Your task to perform on an android device: What's the weather going to be tomorrow? Image 0: 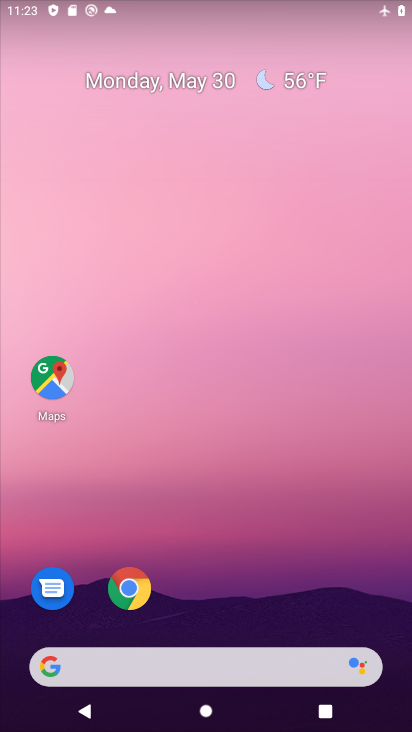
Step 0: drag from (213, 569) to (223, 73)
Your task to perform on an android device: What's the weather going to be tomorrow? Image 1: 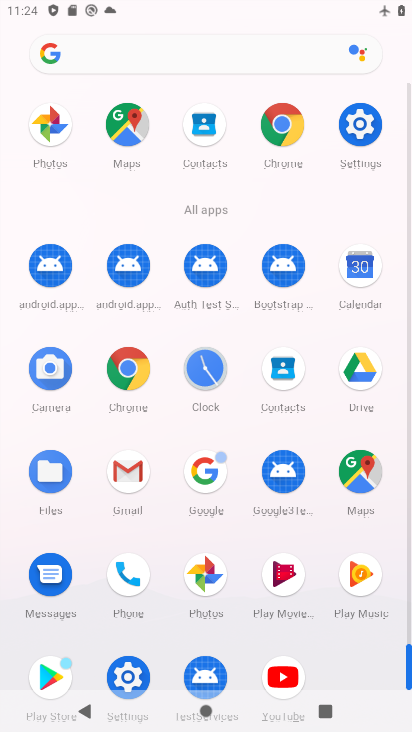
Step 1: click (221, 480)
Your task to perform on an android device: What's the weather going to be tomorrow? Image 2: 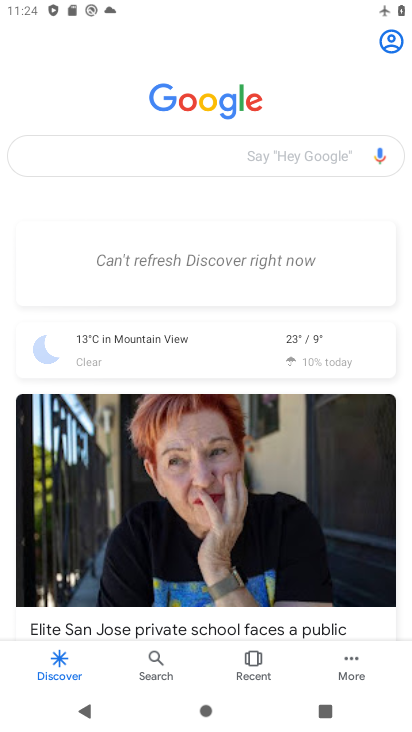
Step 2: click (161, 159)
Your task to perform on an android device: What's the weather going to be tomorrow? Image 3: 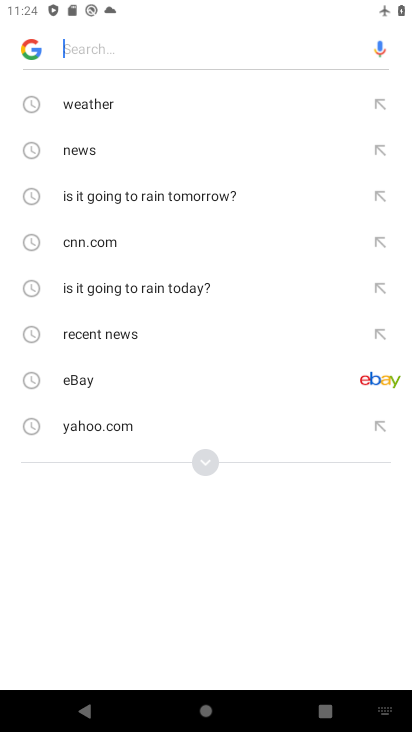
Step 3: click (94, 108)
Your task to perform on an android device: What's the weather going to be tomorrow? Image 4: 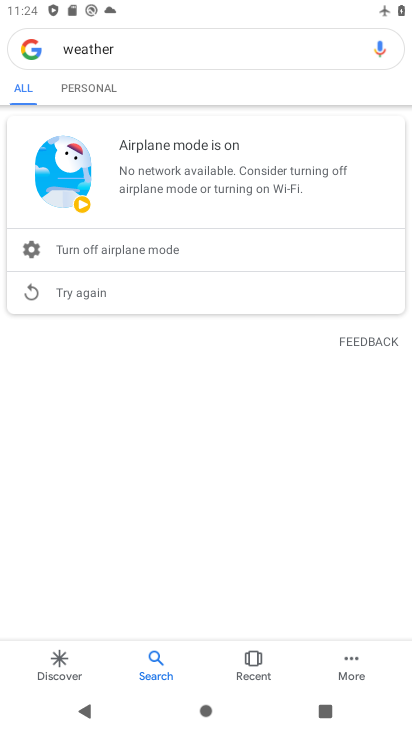
Step 4: task complete